Your task to perform on an android device: Go to privacy settings Image 0: 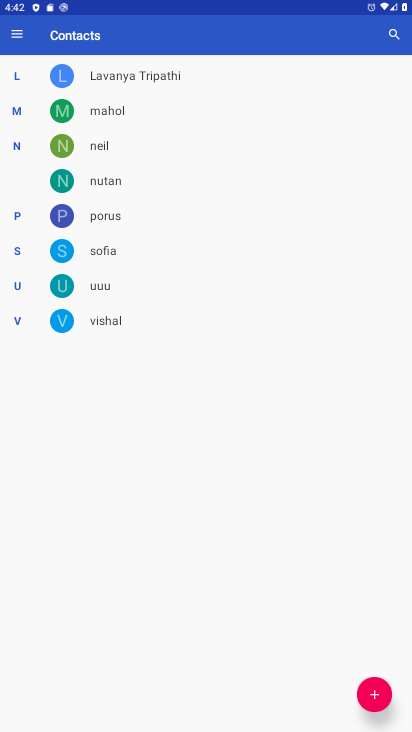
Step 0: press home button
Your task to perform on an android device: Go to privacy settings Image 1: 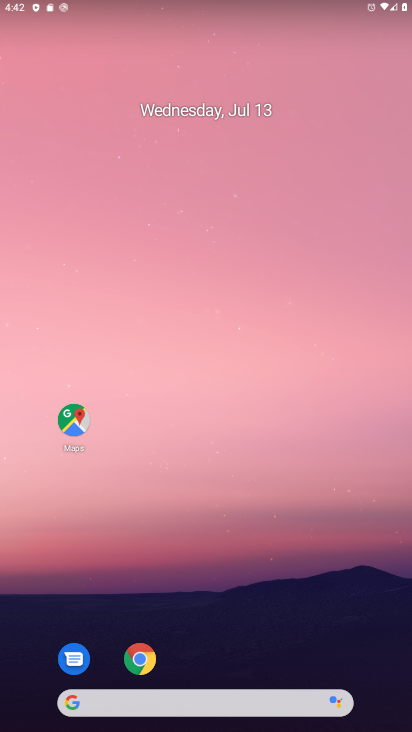
Step 1: drag from (302, 584) to (288, 42)
Your task to perform on an android device: Go to privacy settings Image 2: 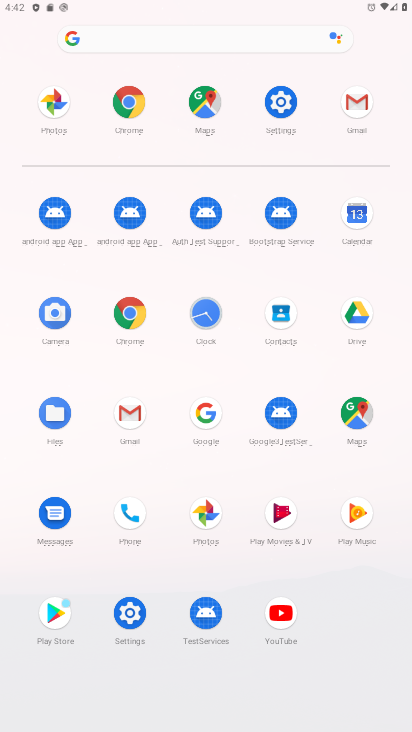
Step 2: click (285, 96)
Your task to perform on an android device: Go to privacy settings Image 3: 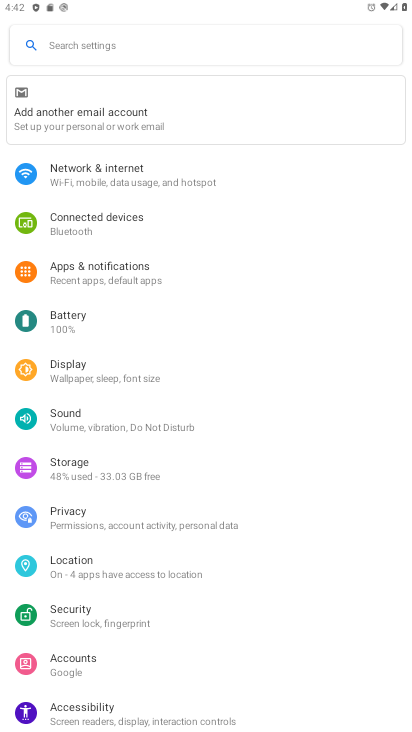
Step 3: click (86, 516)
Your task to perform on an android device: Go to privacy settings Image 4: 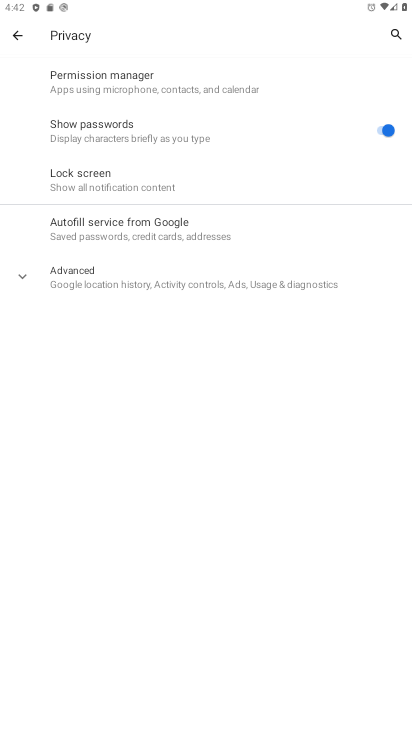
Step 4: task complete